Your task to perform on an android device: open app "Reddit" Image 0: 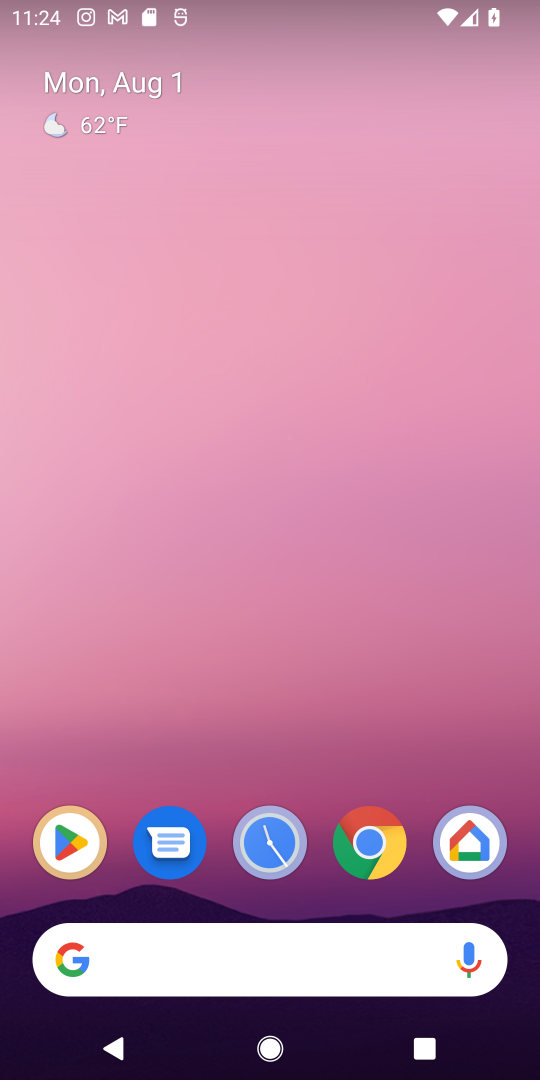
Step 0: click (76, 835)
Your task to perform on an android device: open app "Reddit" Image 1: 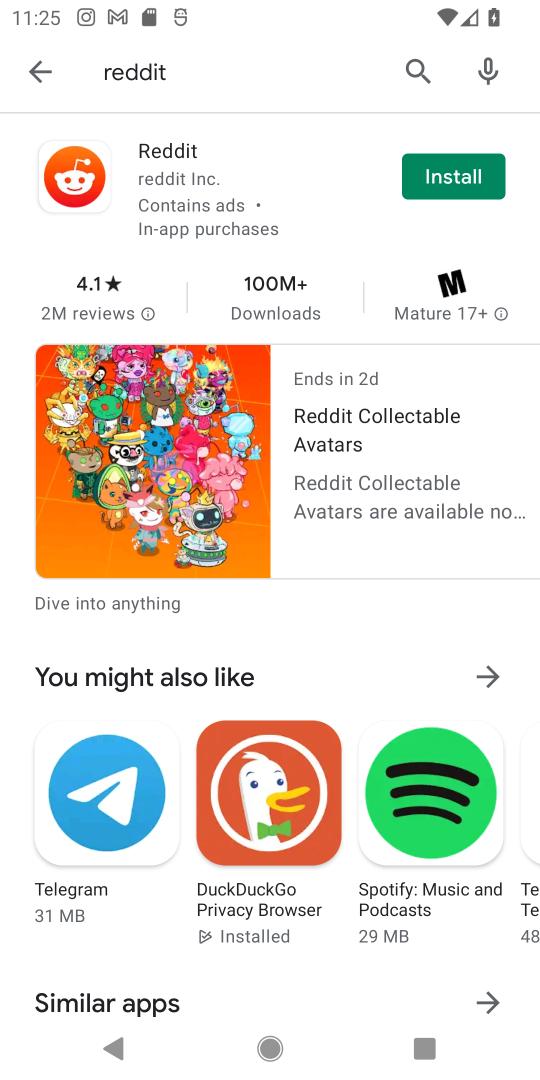
Step 1: task complete